Your task to perform on an android device: turn off airplane mode Image 0: 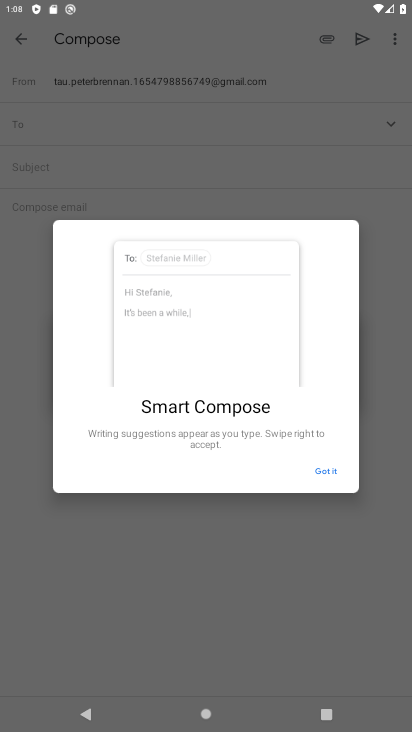
Step 0: press home button
Your task to perform on an android device: turn off airplane mode Image 1: 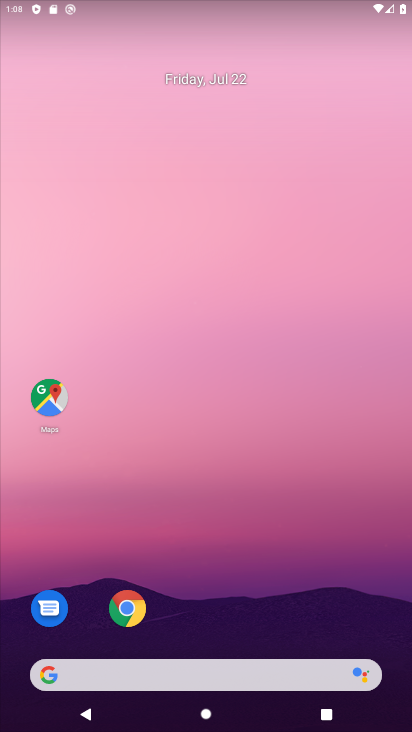
Step 1: drag from (392, 706) to (309, 42)
Your task to perform on an android device: turn off airplane mode Image 2: 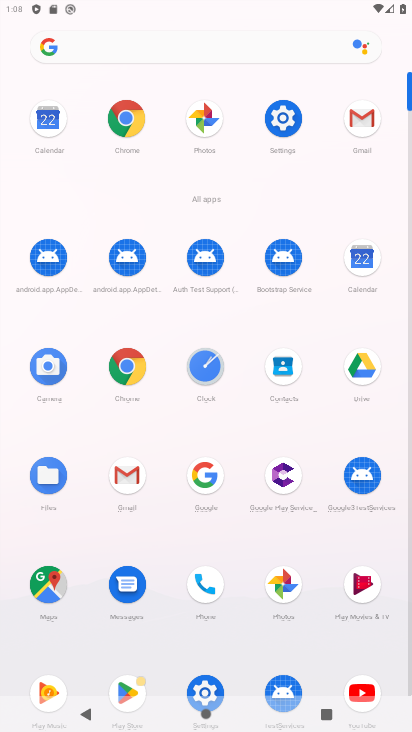
Step 2: click (287, 120)
Your task to perform on an android device: turn off airplane mode Image 3: 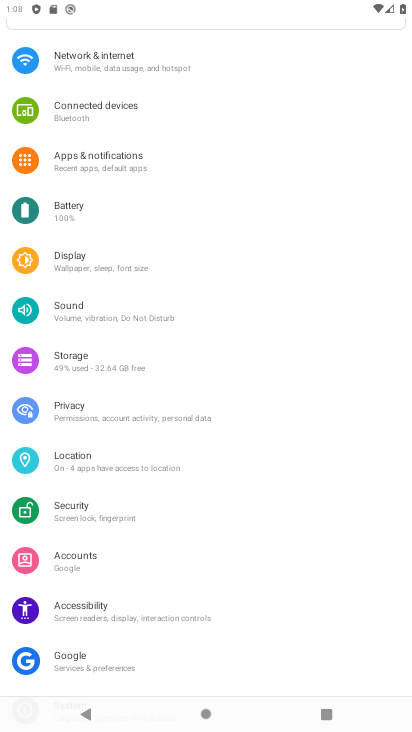
Step 3: drag from (299, 137) to (306, 526)
Your task to perform on an android device: turn off airplane mode Image 4: 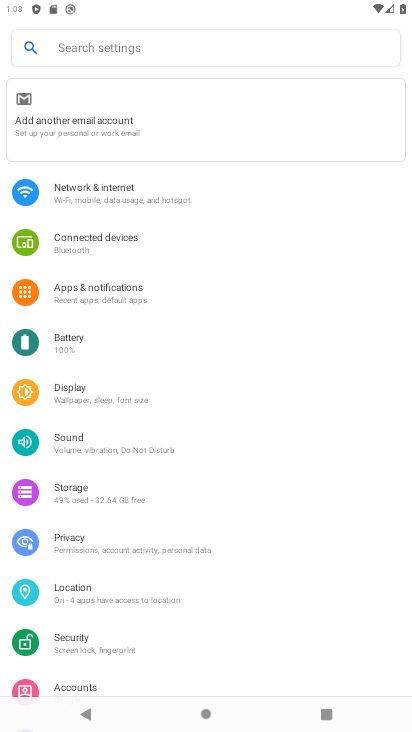
Step 4: click (95, 195)
Your task to perform on an android device: turn off airplane mode Image 5: 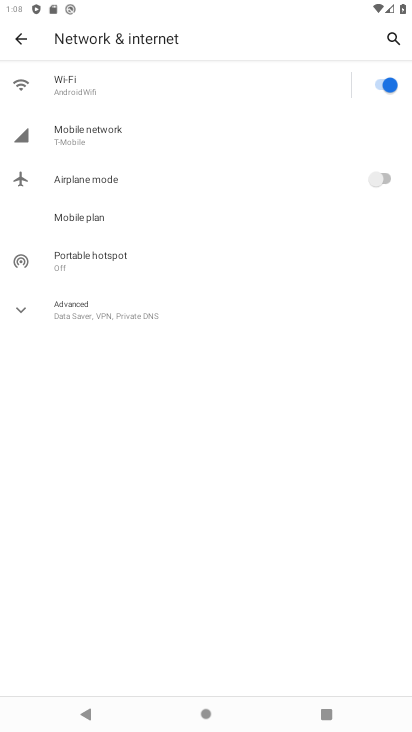
Step 5: task complete